Your task to perform on an android device: visit the assistant section in the google photos Image 0: 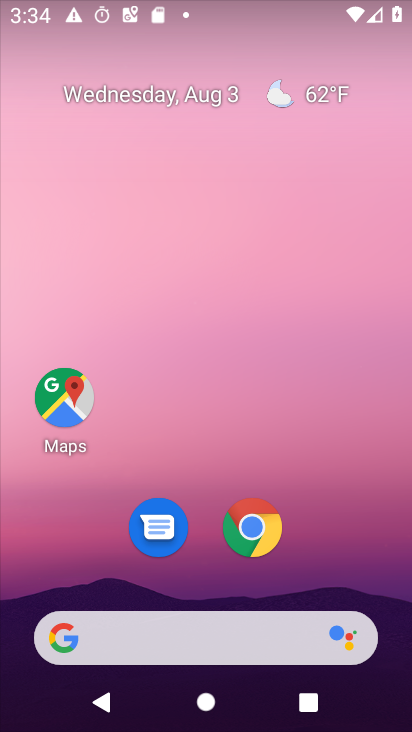
Step 0: drag from (312, 546) to (173, 77)
Your task to perform on an android device: visit the assistant section in the google photos Image 1: 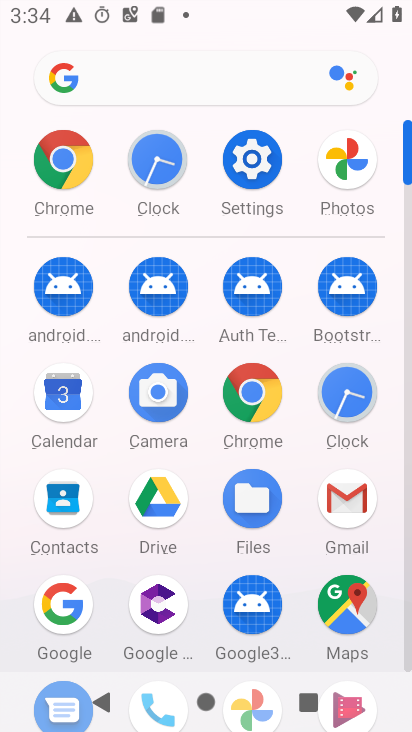
Step 1: drag from (193, 550) to (179, 254)
Your task to perform on an android device: visit the assistant section in the google photos Image 2: 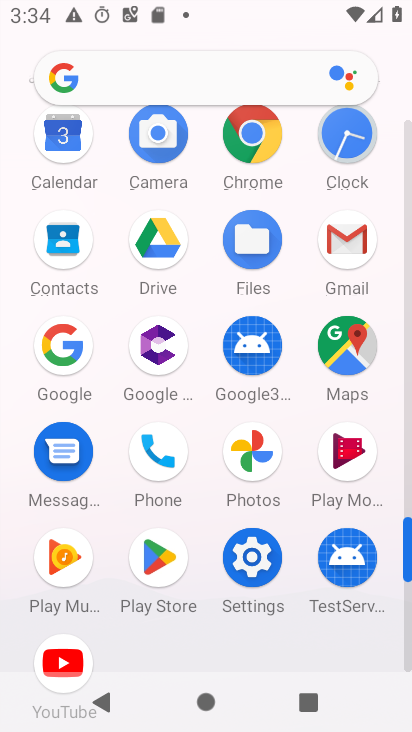
Step 2: click (243, 449)
Your task to perform on an android device: visit the assistant section in the google photos Image 3: 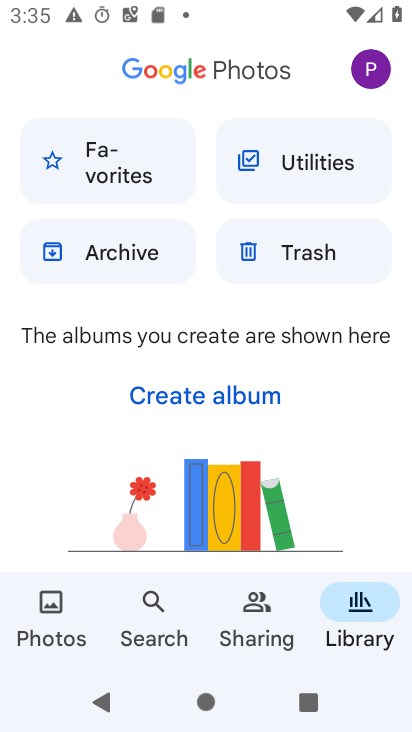
Step 3: click (250, 604)
Your task to perform on an android device: visit the assistant section in the google photos Image 4: 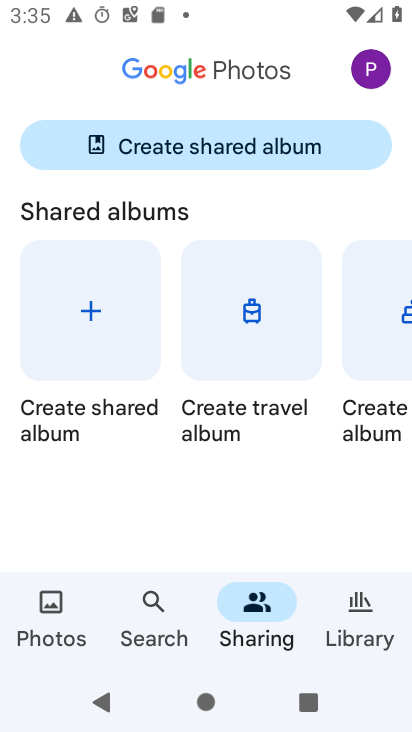
Step 4: drag from (334, 365) to (3, 406)
Your task to perform on an android device: visit the assistant section in the google photos Image 5: 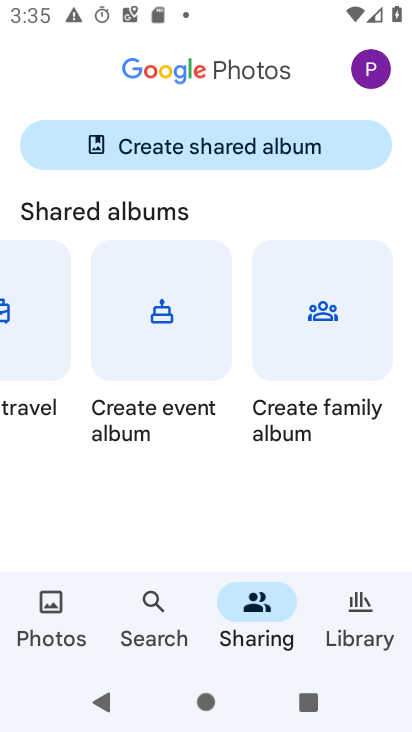
Step 5: click (386, 625)
Your task to perform on an android device: visit the assistant section in the google photos Image 6: 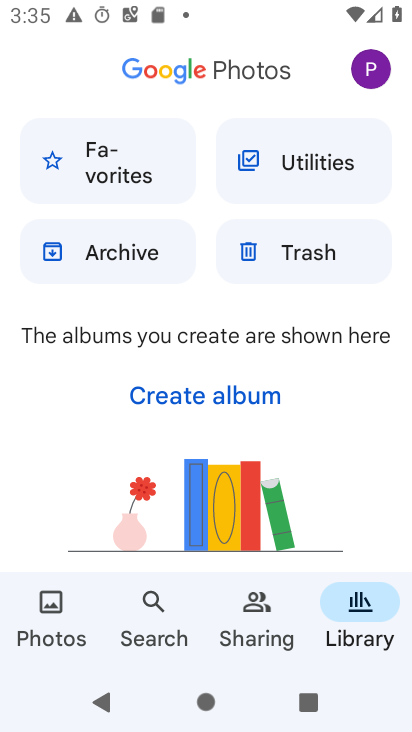
Step 6: click (261, 158)
Your task to perform on an android device: visit the assistant section in the google photos Image 7: 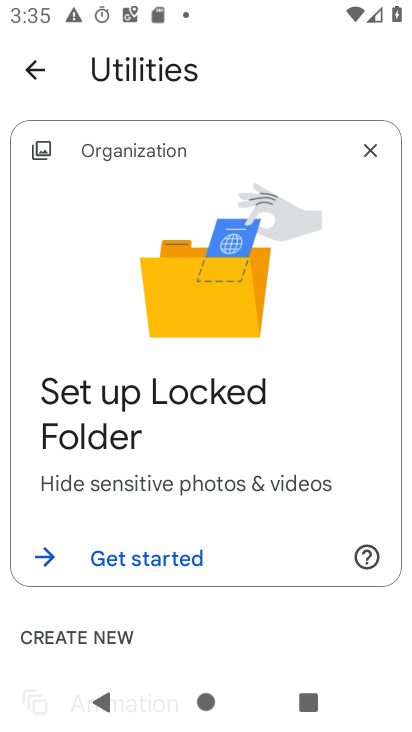
Step 7: task complete